Your task to perform on an android device: turn on javascript in the chrome app Image 0: 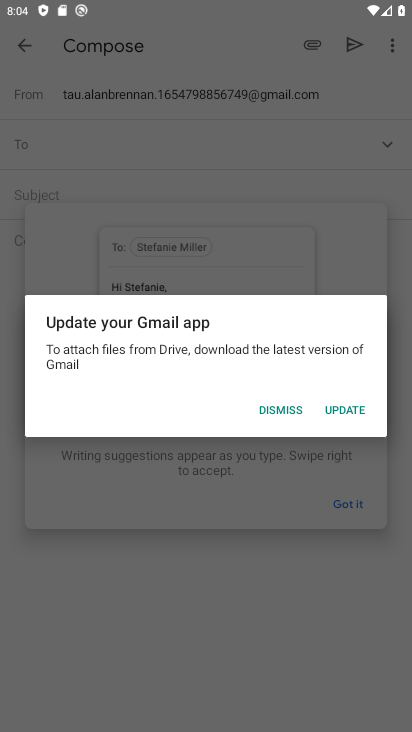
Step 0: click (356, 423)
Your task to perform on an android device: turn on javascript in the chrome app Image 1: 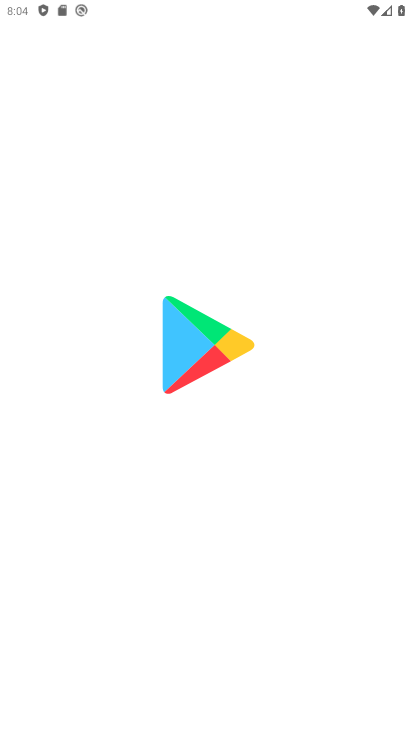
Step 1: press home button
Your task to perform on an android device: turn on javascript in the chrome app Image 2: 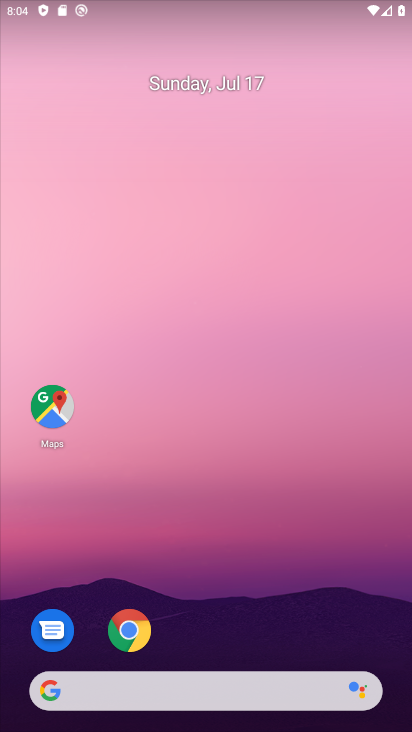
Step 2: click (127, 637)
Your task to perform on an android device: turn on javascript in the chrome app Image 3: 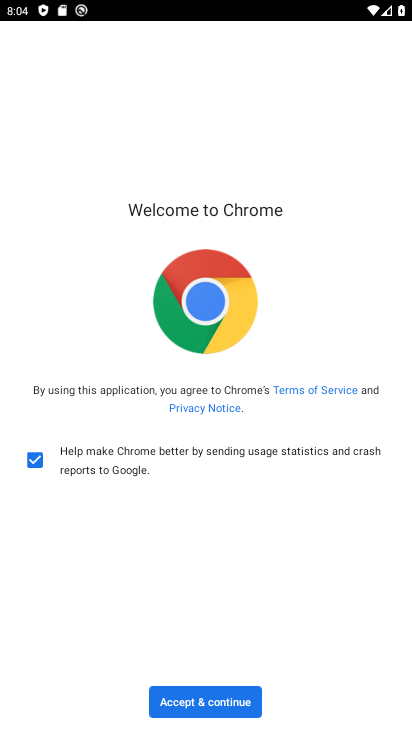
Step 3: click (199, 712)
Your task to perform on an android device: turn on javascript in the chrome app Image 4: 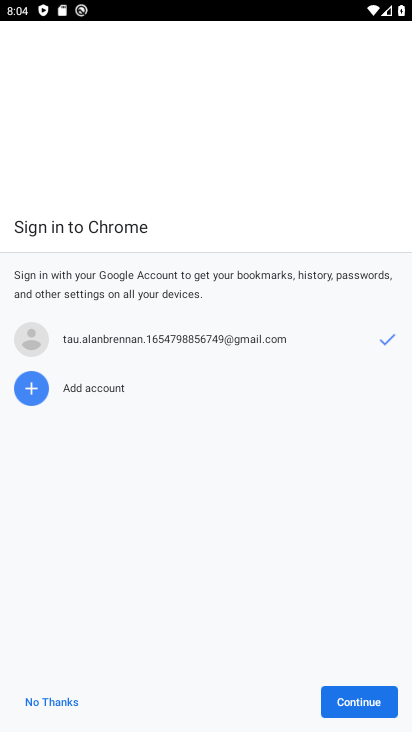
Step 4: click (356, 697)
Your task to perform on an android device: turn on javascript in the chrome app Image 5: 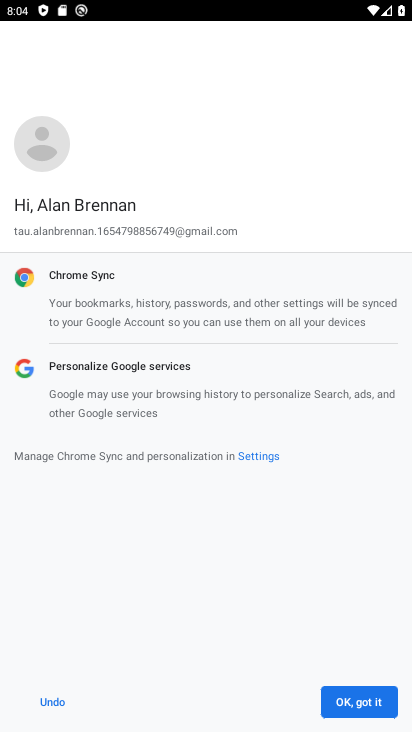
Step 5: task complete